Your task to perform on an android device: check battery use Image 0: 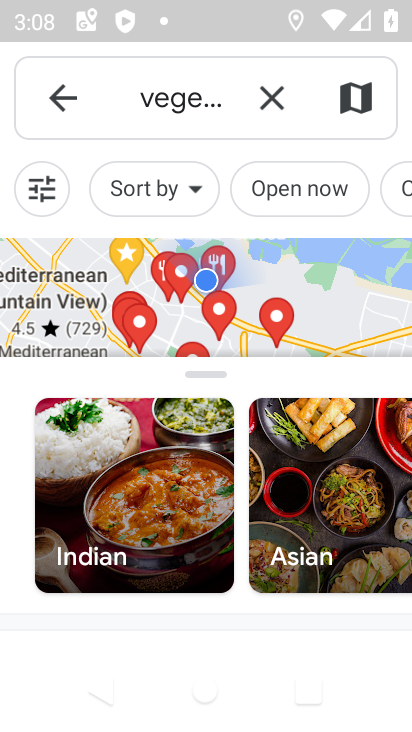
Step 0: press home button
Your task to perform on an android device: check battery use Image 1: 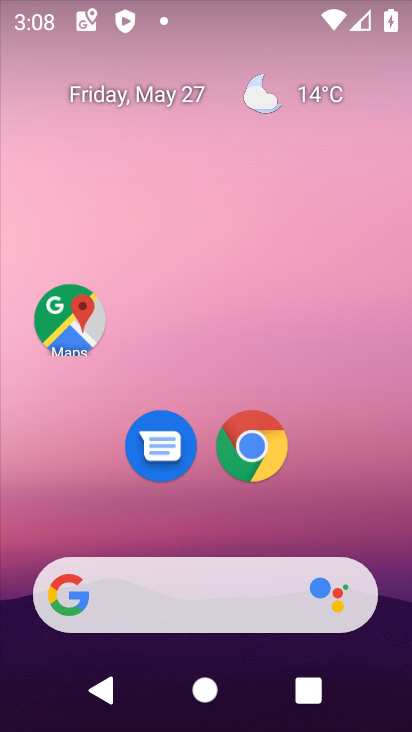
Step 1: drag from (222, 579) to (286, 155)
Your task to perform on an android device: check battery use Image 2: 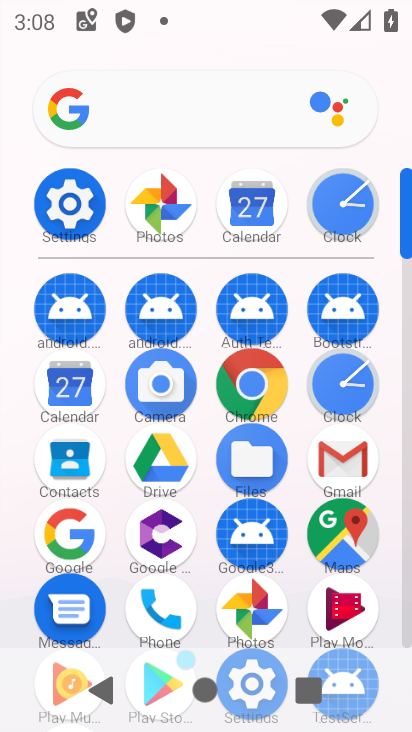
Step 2: click (76, 212)
Your task to perform on an android device: check battery use Image 3: 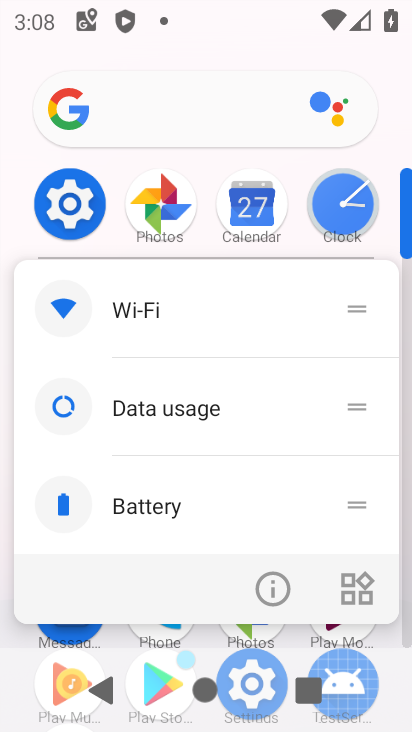
Step 3: click (70, 206)
Your task to perform on an android device: check battery use Image 4: 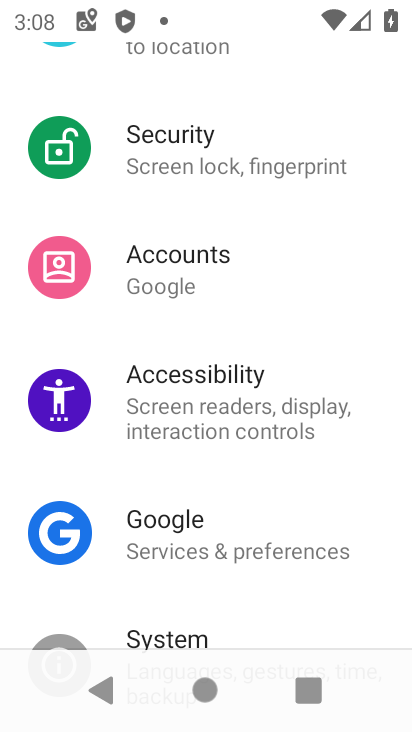
Step 4: drag from (273, 394) to (252, 611)
Your task to perform on an android device: check battery use Image 5: 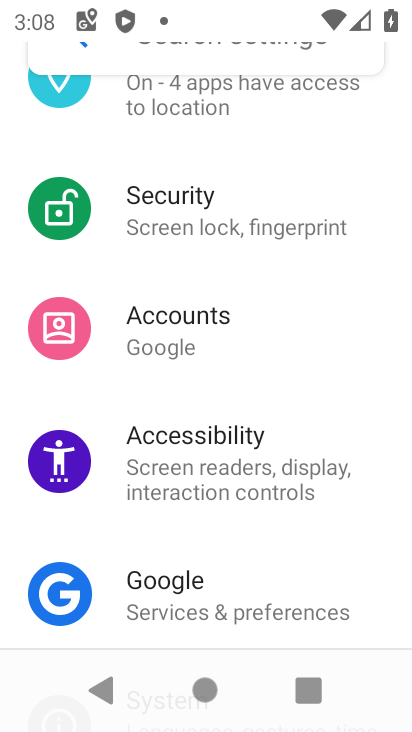
Step 5: drag from (254, 212) to (193, 598)
Your task to perform on an android device: check battery use Image 6: 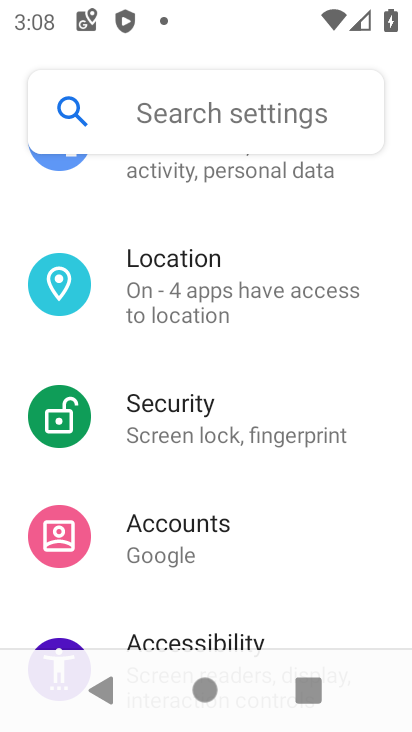
Step 6: drag from (253, 194) to (227, 645)
Your task to perform on an android device: check battery use Image 7: 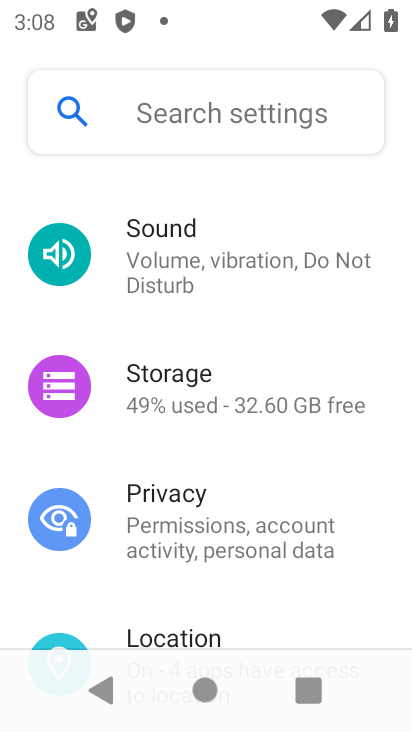
Step 7: drag from (251, 200) to (202, 627)
Your task to perform on an android device: check battery use Image 8: 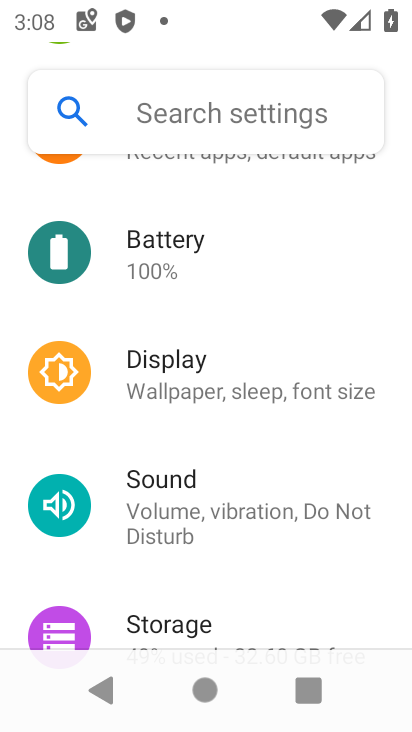
Step 8: click (143, 254)
Your task to perform on an android device: check battery use Image 9: 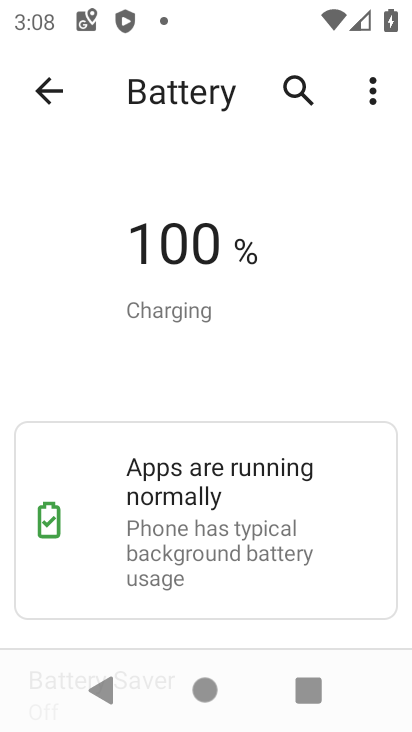
Step 9: click (372, 97)
Your task to perform on an android device: check battery use Image 10: 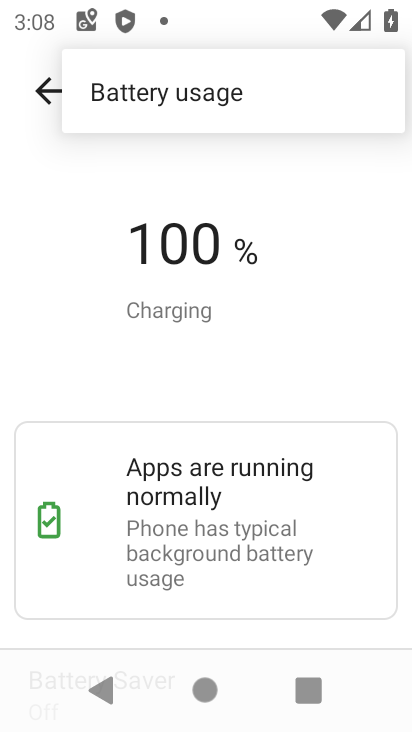
Step 10: click (215, 99)
Your task to perform on an android device: check battery use Image 11: 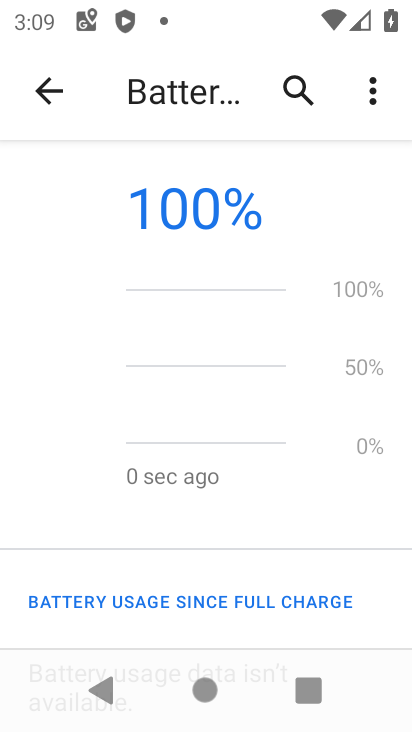
Step 11: task complete